Your task to perform on an android device: Add energizer triple a to the cart on walmart, then select checkout. Image 0: 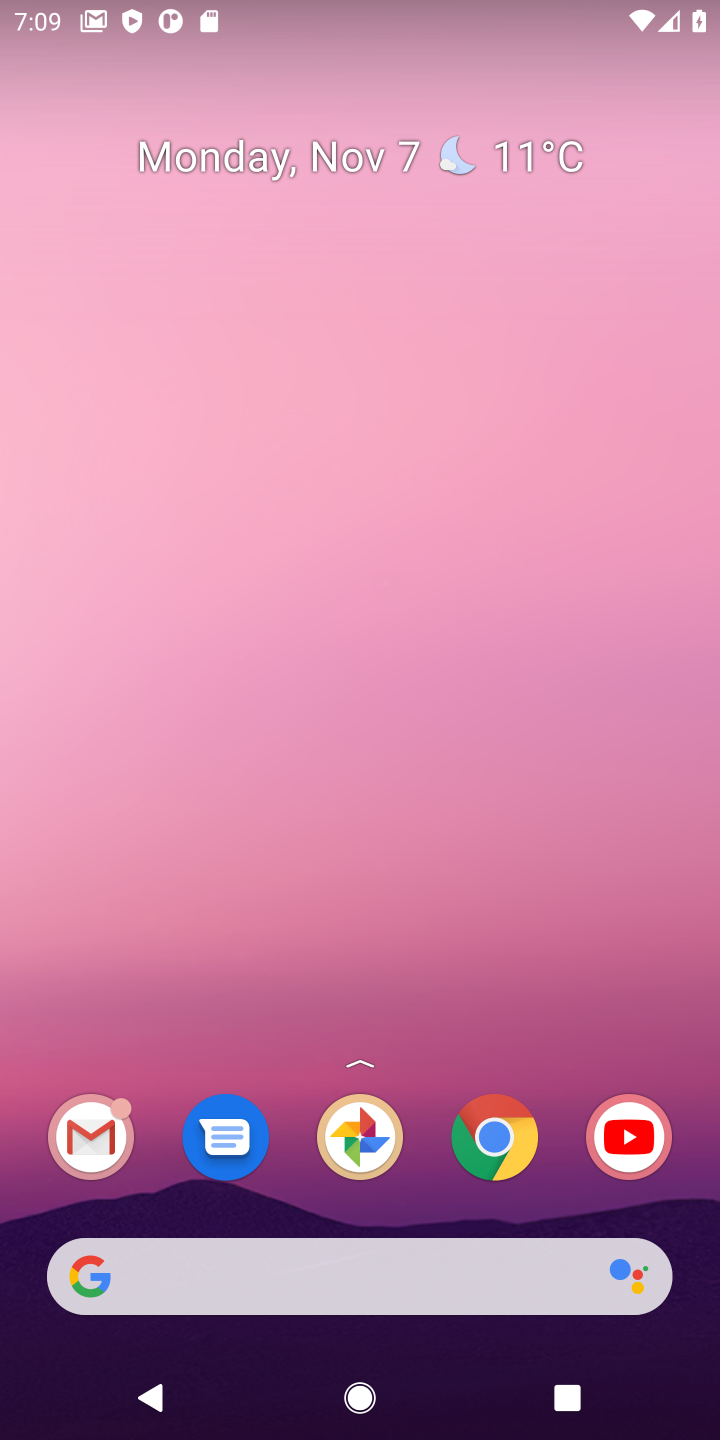
Step 0: click (517, 1115)
Your task to perform on an android device: Add energizer triple a to the cart on walmart, then select checkout. Image 1: 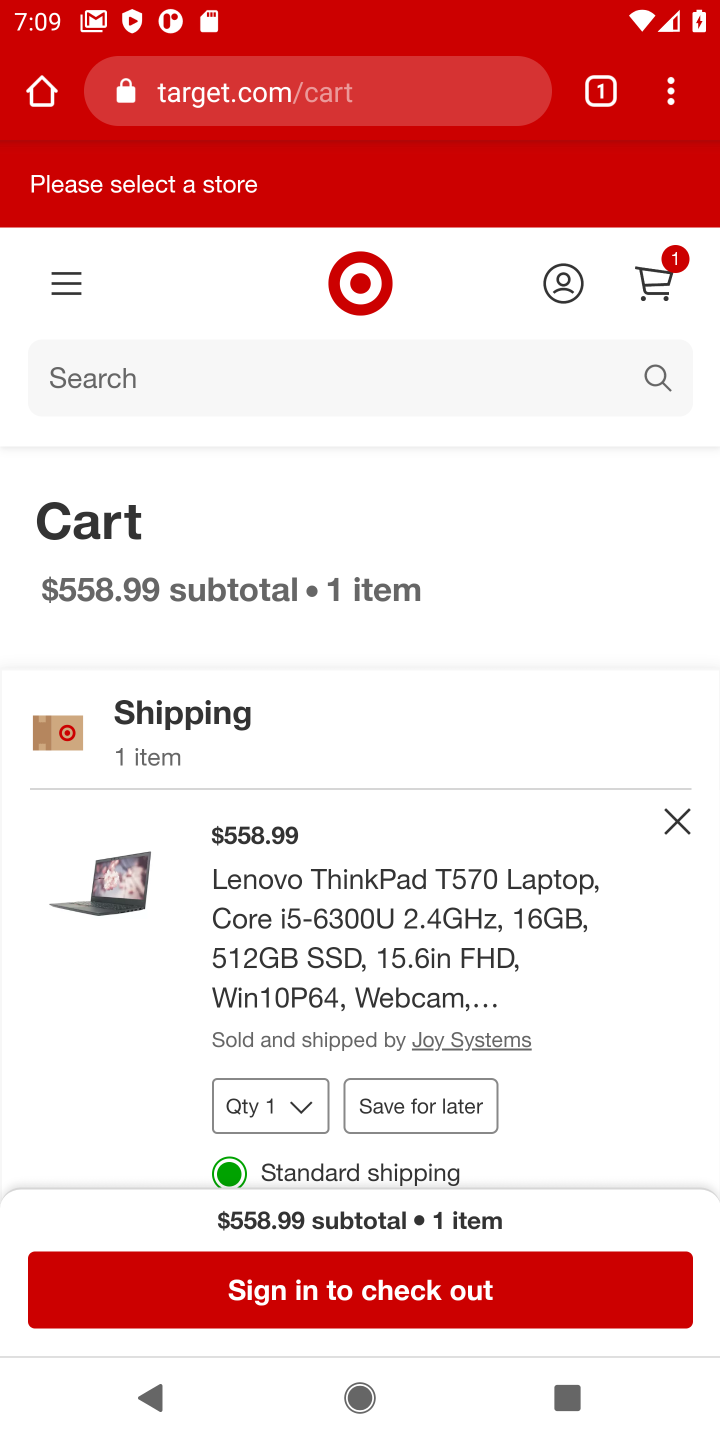
Step 1: click (612, 87)
Your task to perform on an android device: Add energizer triple a to the cart on walmart, then select checkout. Image 2: 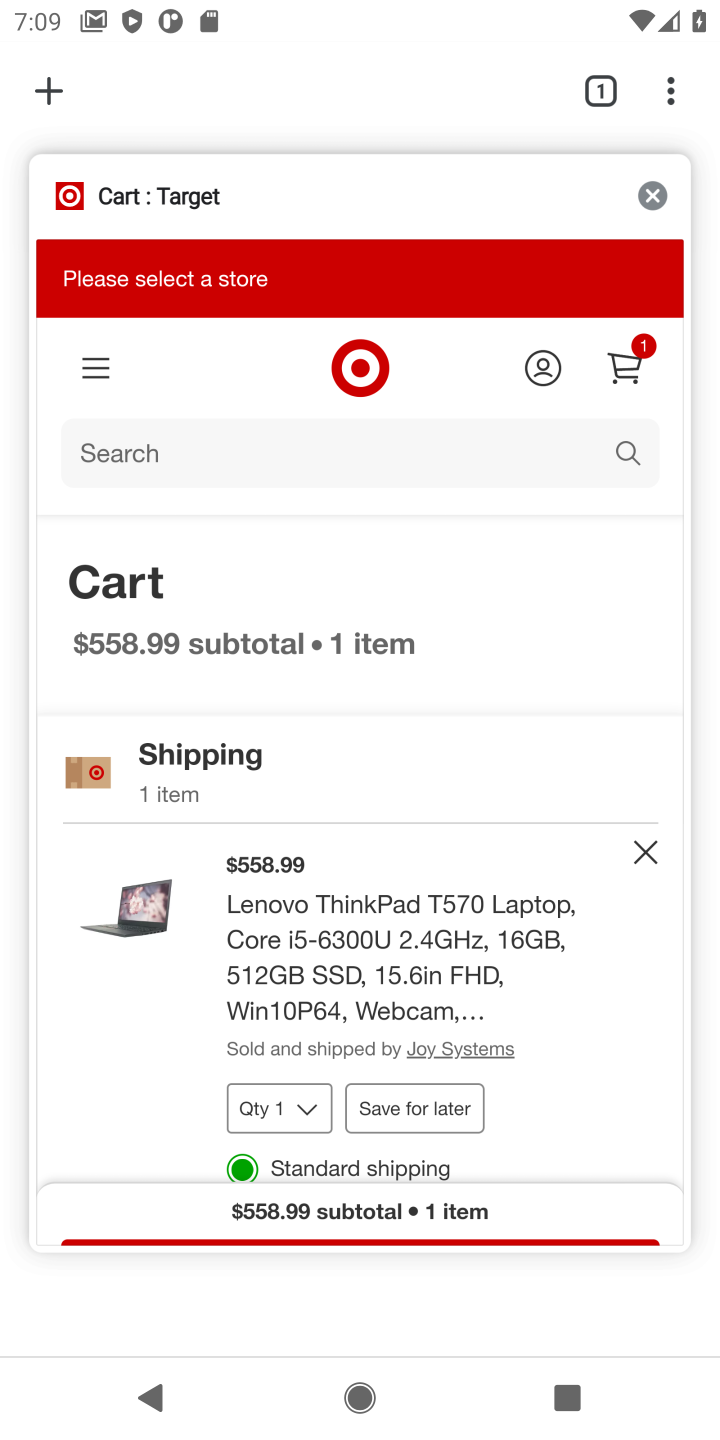
Step 2: click (57, 82)
Your task to perform on an android device: Add energizer triple a to the cart on walmart, then select checkout. Image 3: 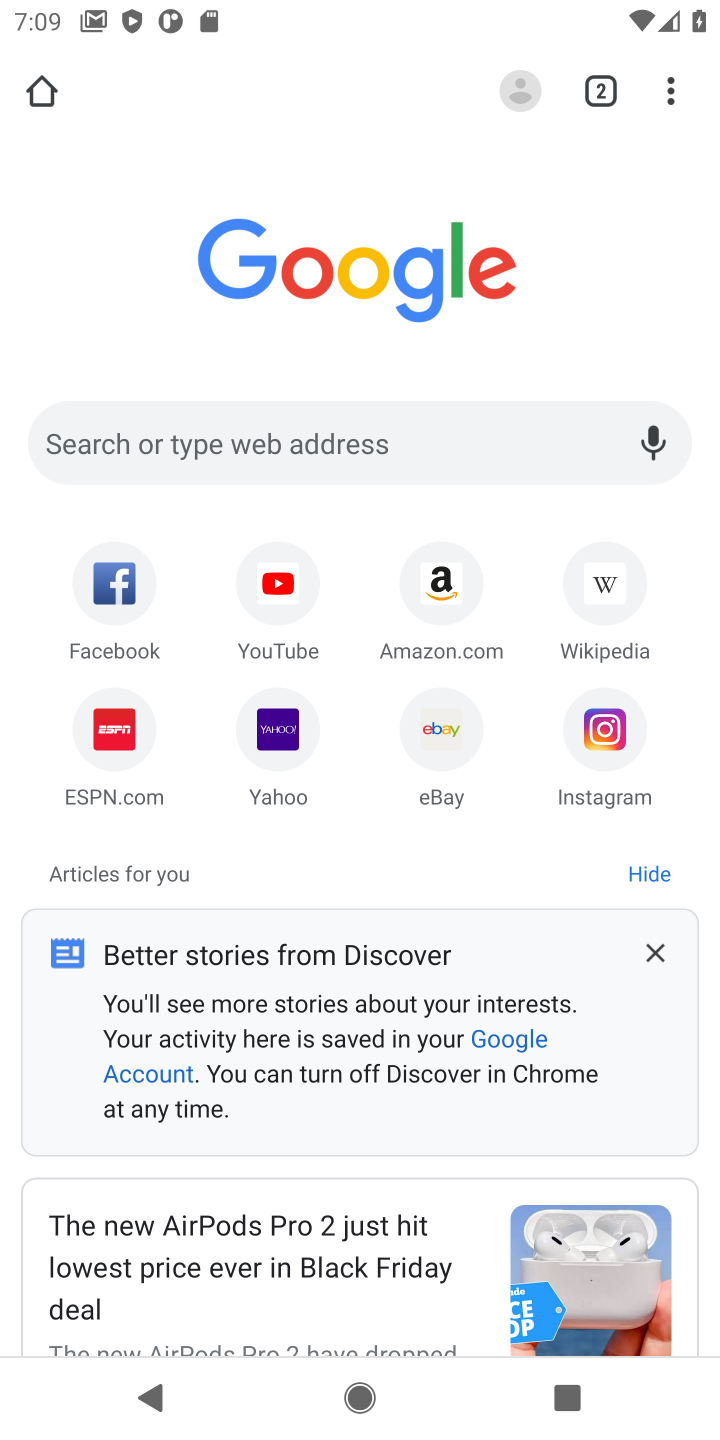
Step 3: click (223, 440)
Your task to perform on an android device: Add energizer triple a to the cart on walmart, then select checkout. Image 4: 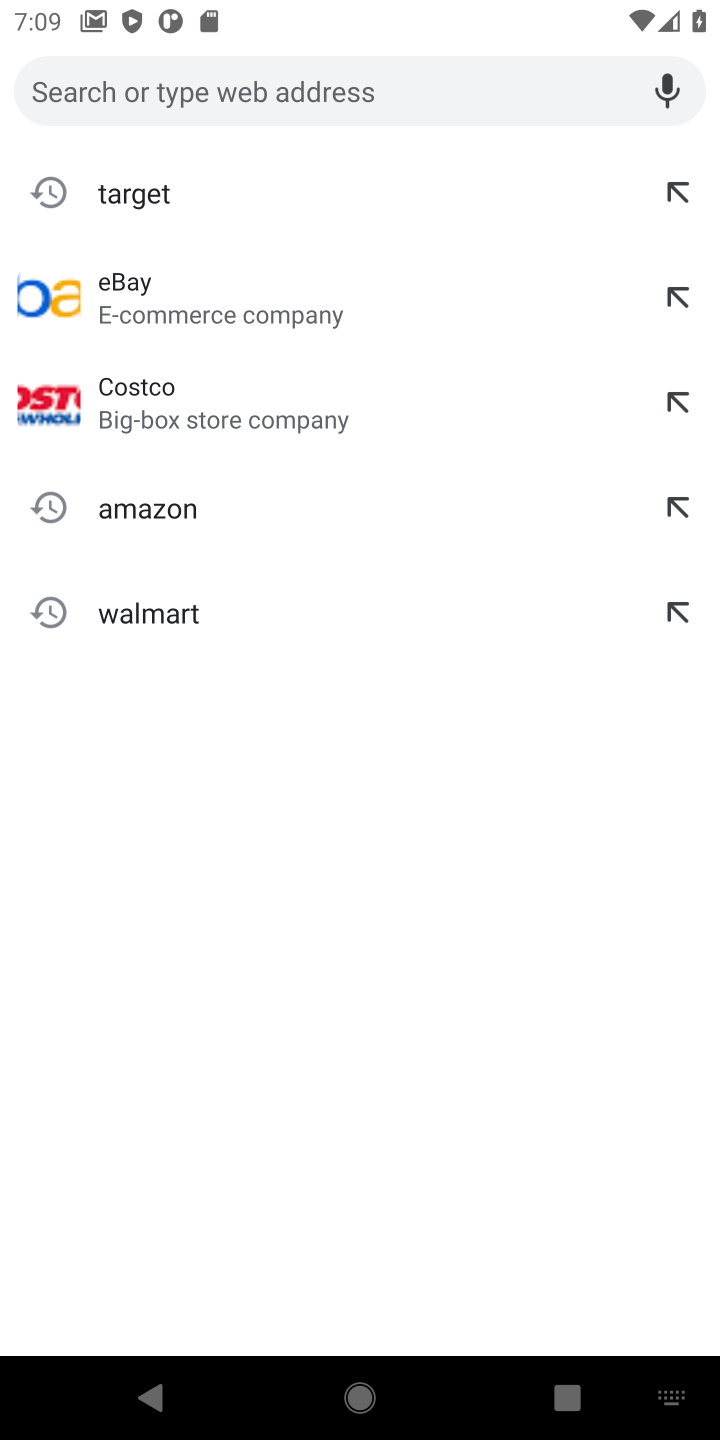
Step 4: click (162, 619)
Your task to perform on an android device: Add energizer triple a to the cart on walmart, then select checkout. Image 5: 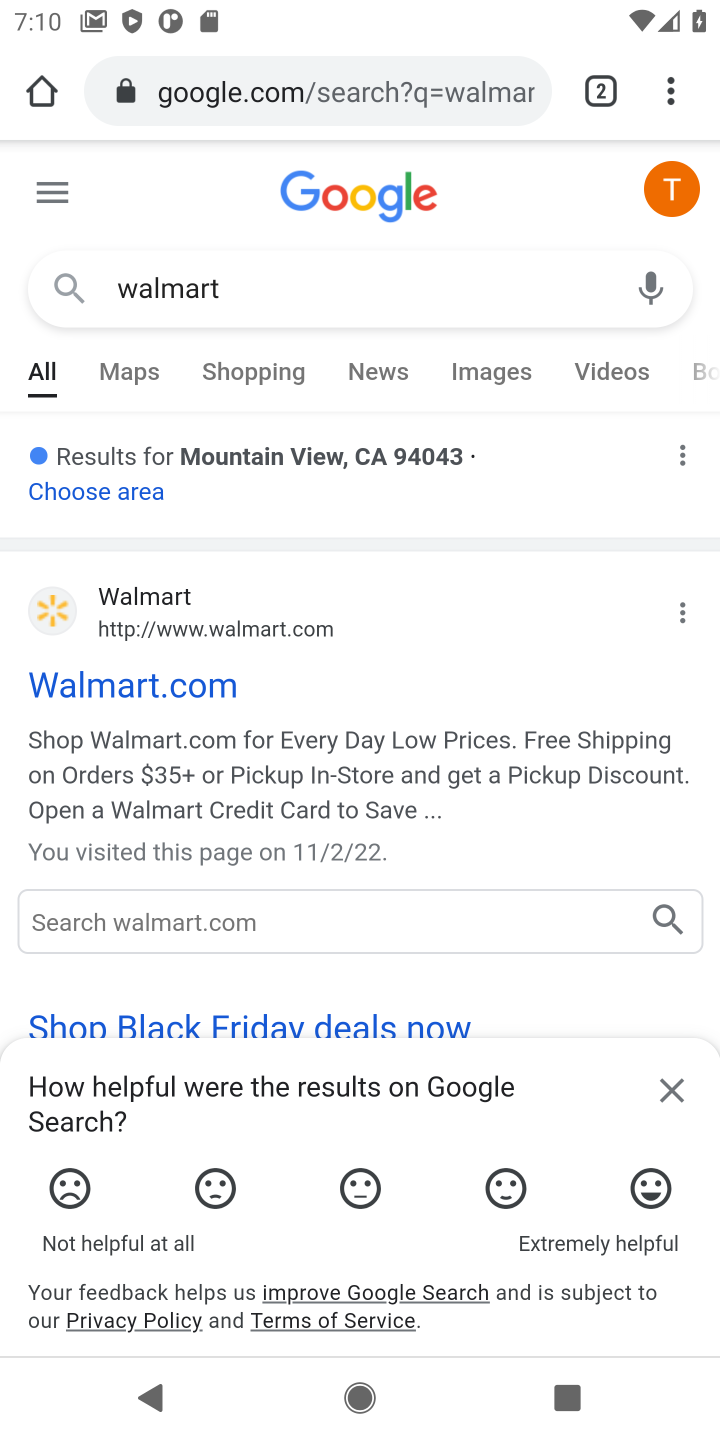
Step 5: click (155, 916)
Your task to perform on an android device: Add energizer triple a to the cart on walmart, then select checkout. Image 6: 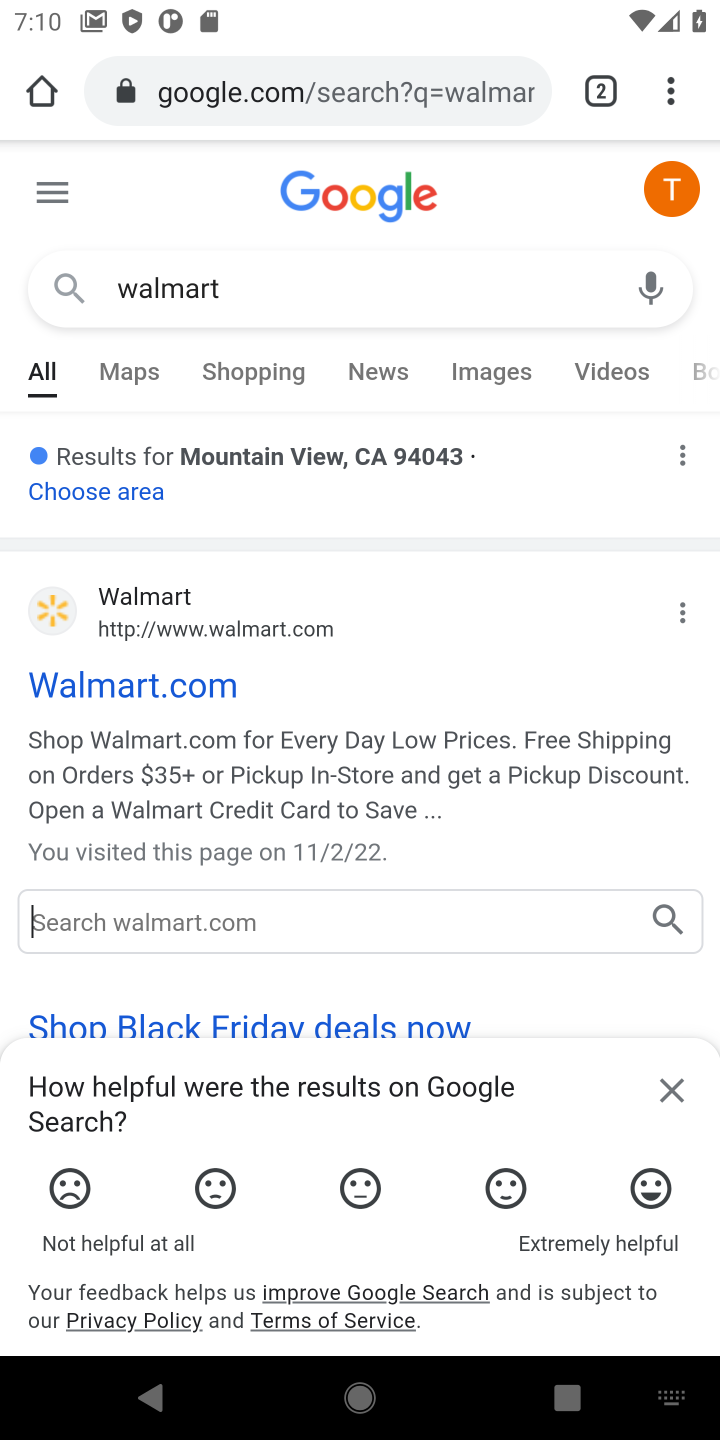
Step 6: type "energizer triple a  battery"
Your task to perform on an android device: Add energizer triple a to the cart on walmart, then select checkout. Image 7: 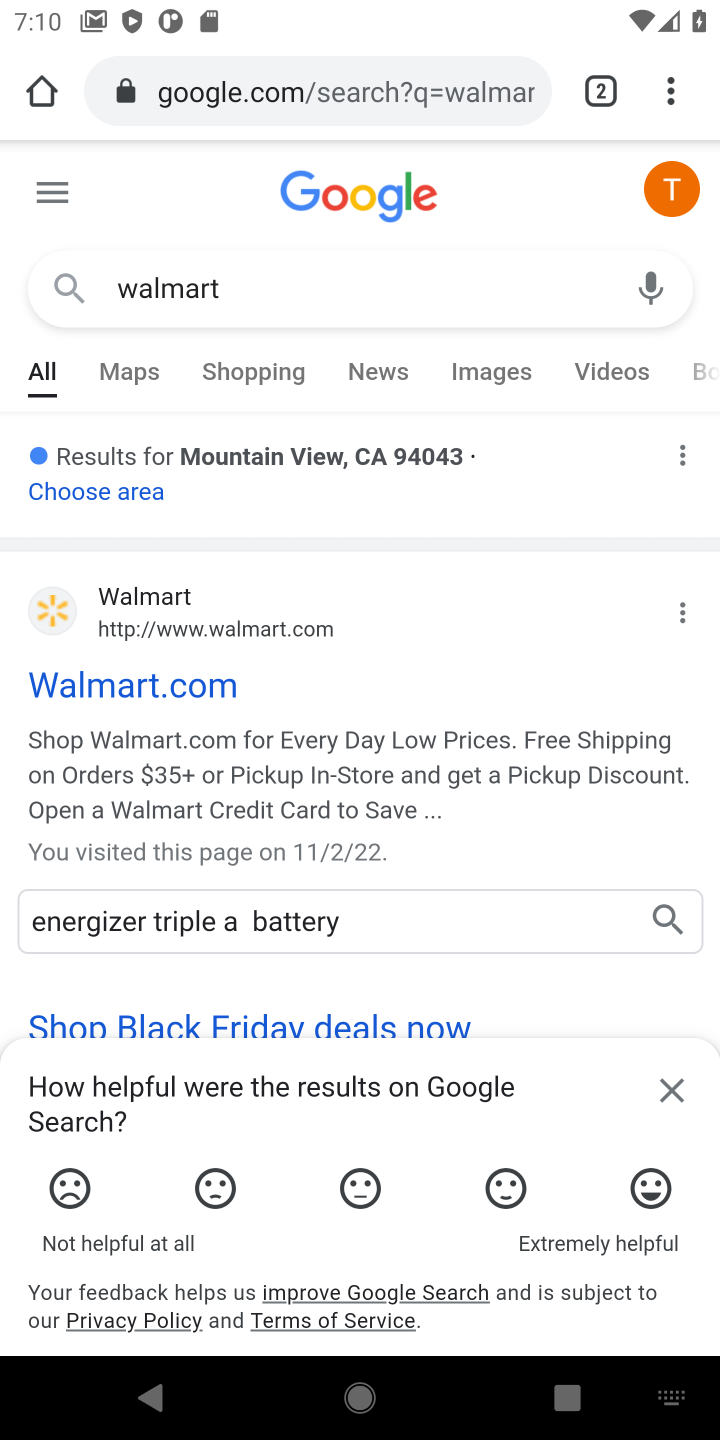
Step 7: click (667, 920)
Your task to perform on an android device: Add energizer triple a to the cart on walmart, then select checkout. Image 8: 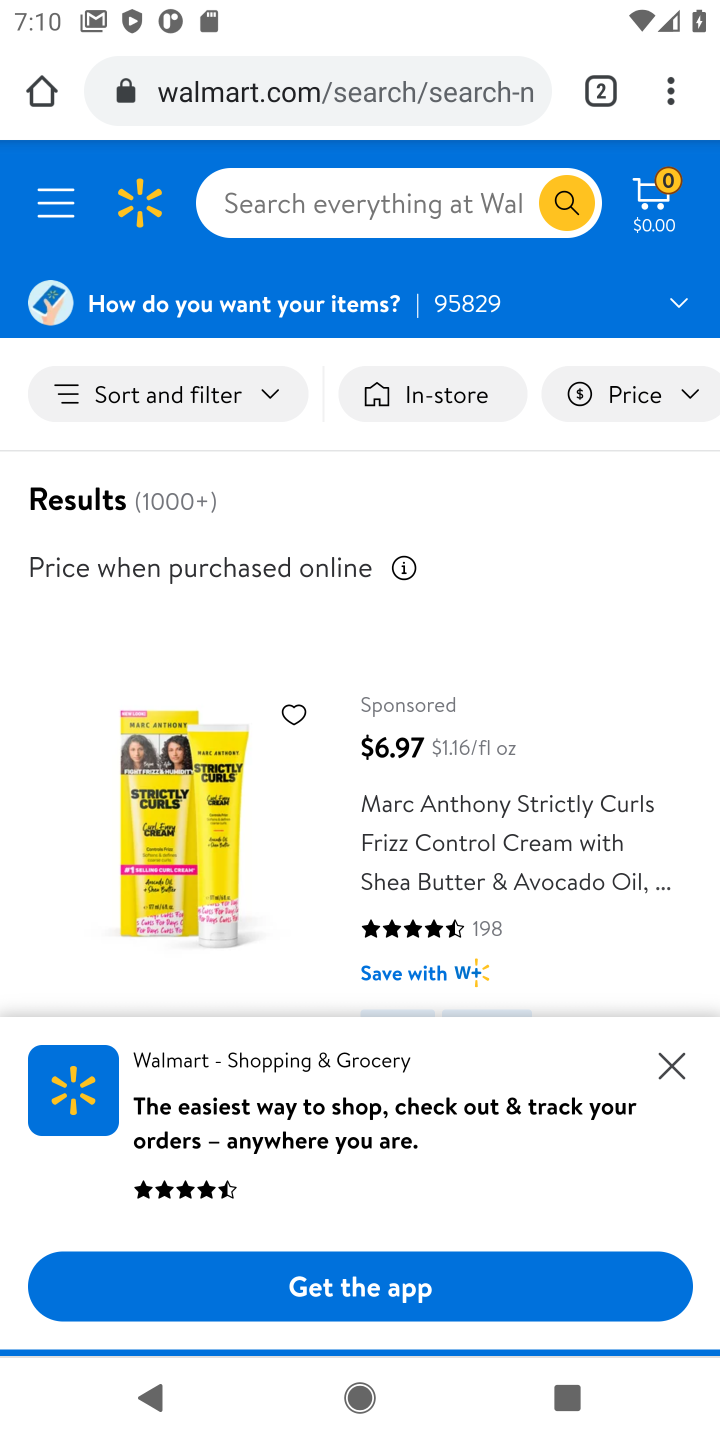
Step 8: click (675, 1067)
Your task to perform on an android device: Add energizer triple a to the cart on walmart, then select checkout. Image 9: 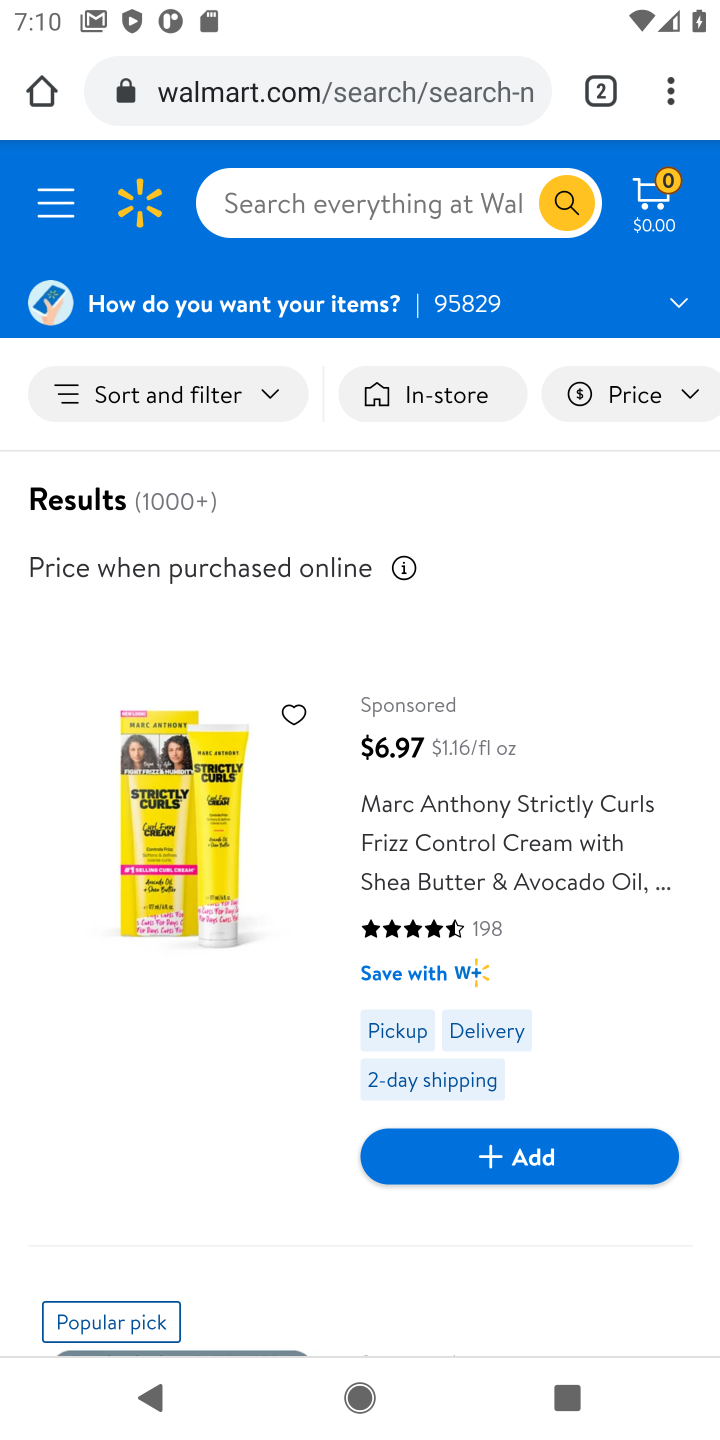
Step 9: drag from (411, 1286) to (719, 0)
Your task to perform on an android device: Add energizer triple a to the cart on walmart, then select checkout. Image 10: 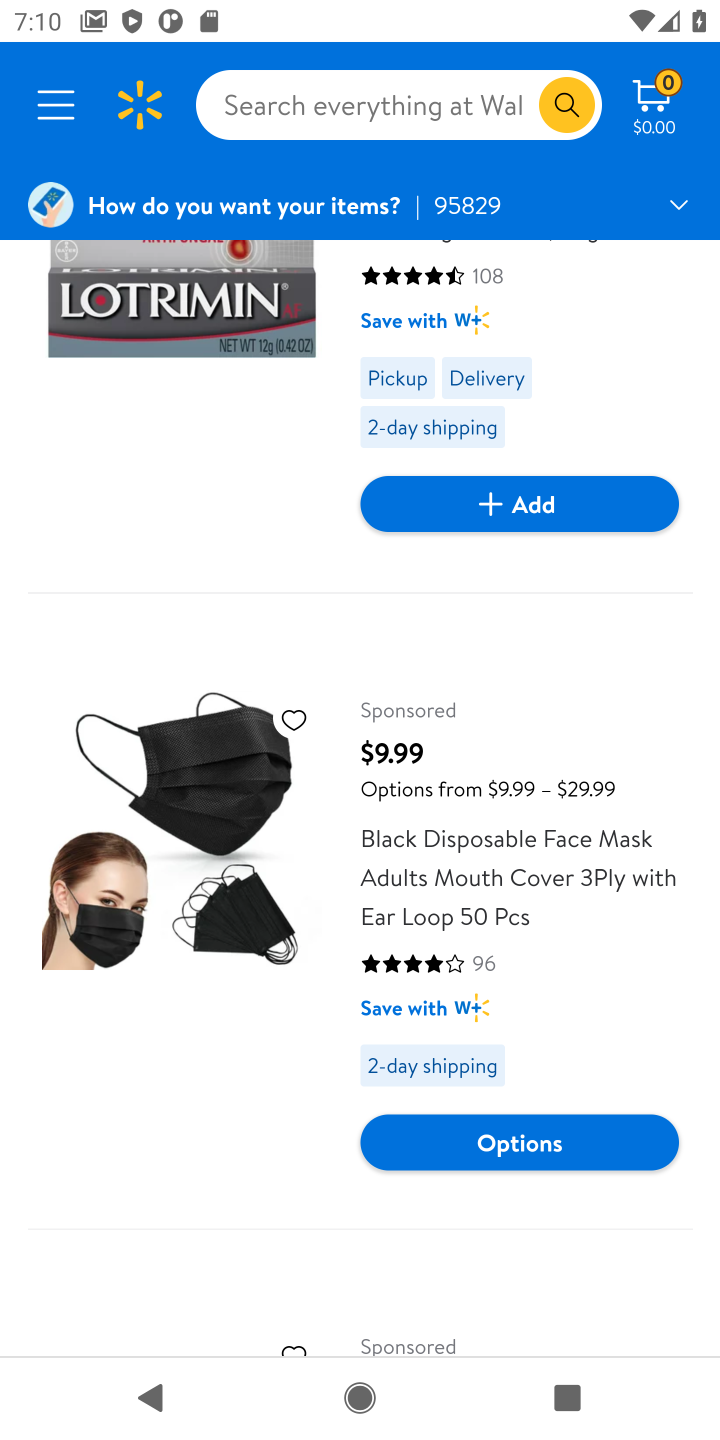
Step 10: drag from (522, 1003) to (506, 196)
Your task to perform on an android device: Add energizer triple a to the cart on walmart, then select checkout. Image 11: 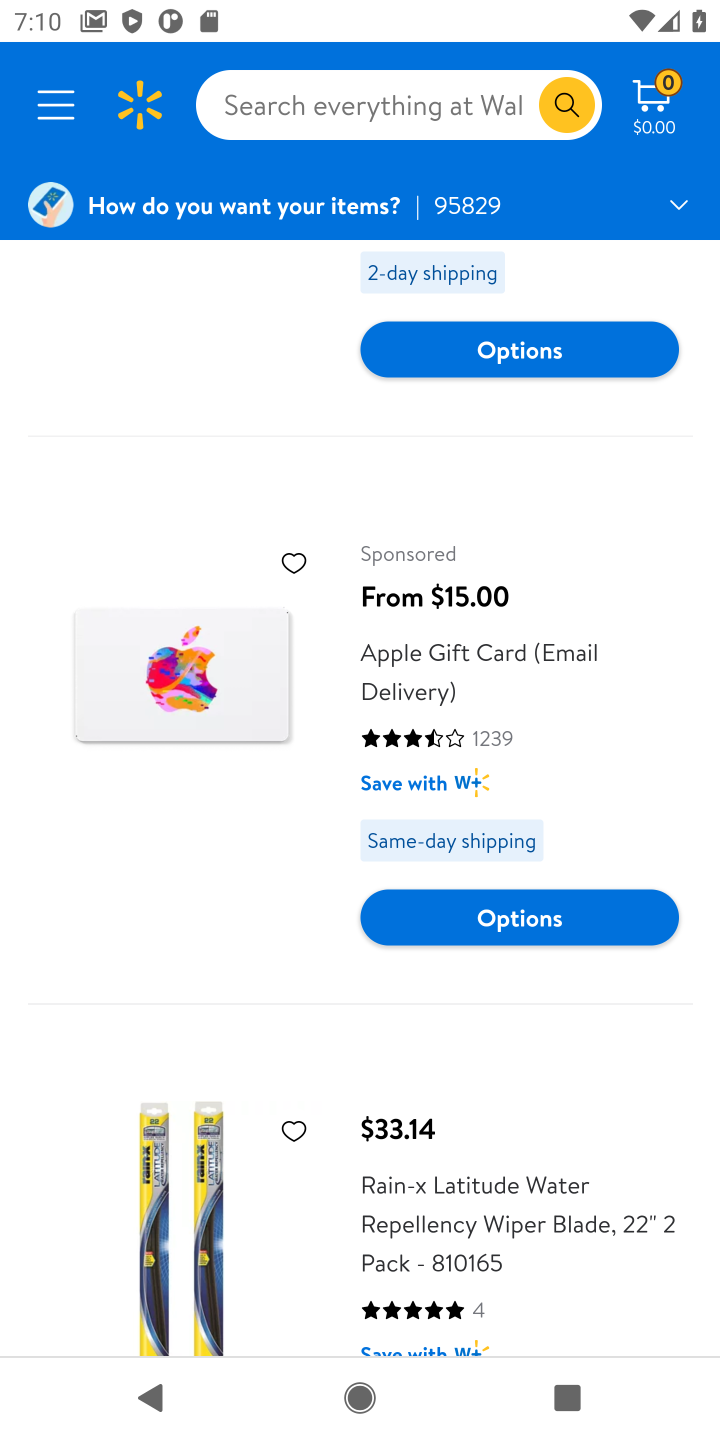
Step 11: drag from (422, 1043) to (688, 10)
Your task to perform on an android device: Add energizer triple a to the cart on walmart, then select checkout. Image 12: 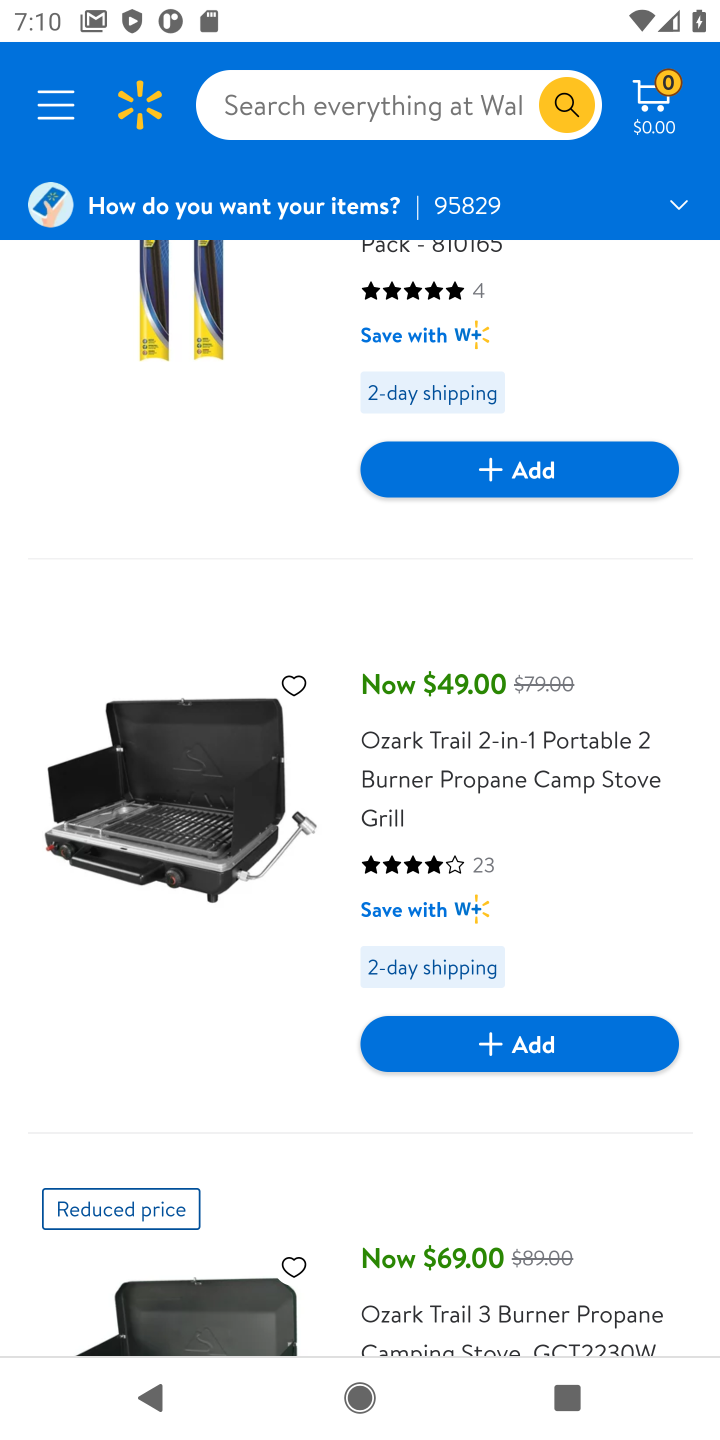
Step 12: click (347, 106)
Your task to perform on an android device: Add energizer triple a to the cart on walmart, then select checkout. Image 13: 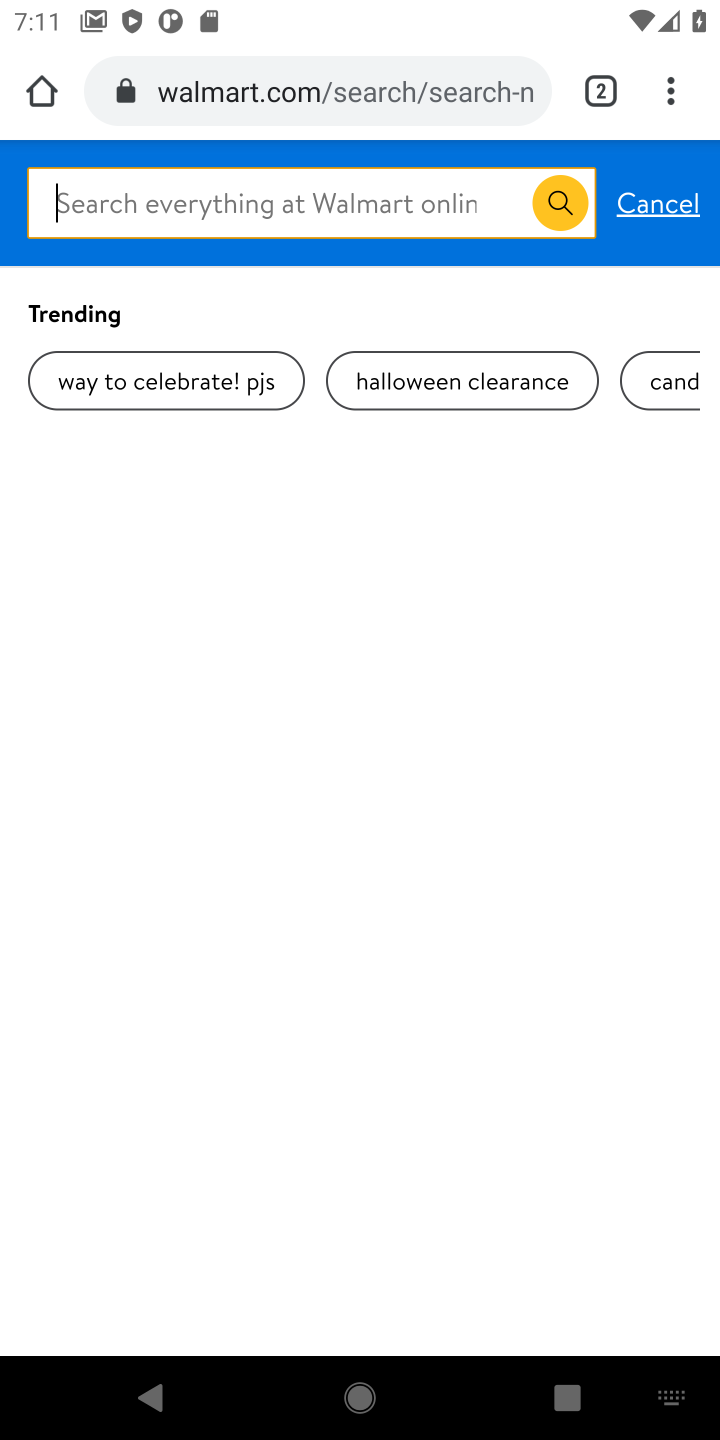
Step 13: type "energizer triple a battery"
Your task to perform on an android device: Add energizer triple a to the cart on walmart, then select checkout. Image 14: 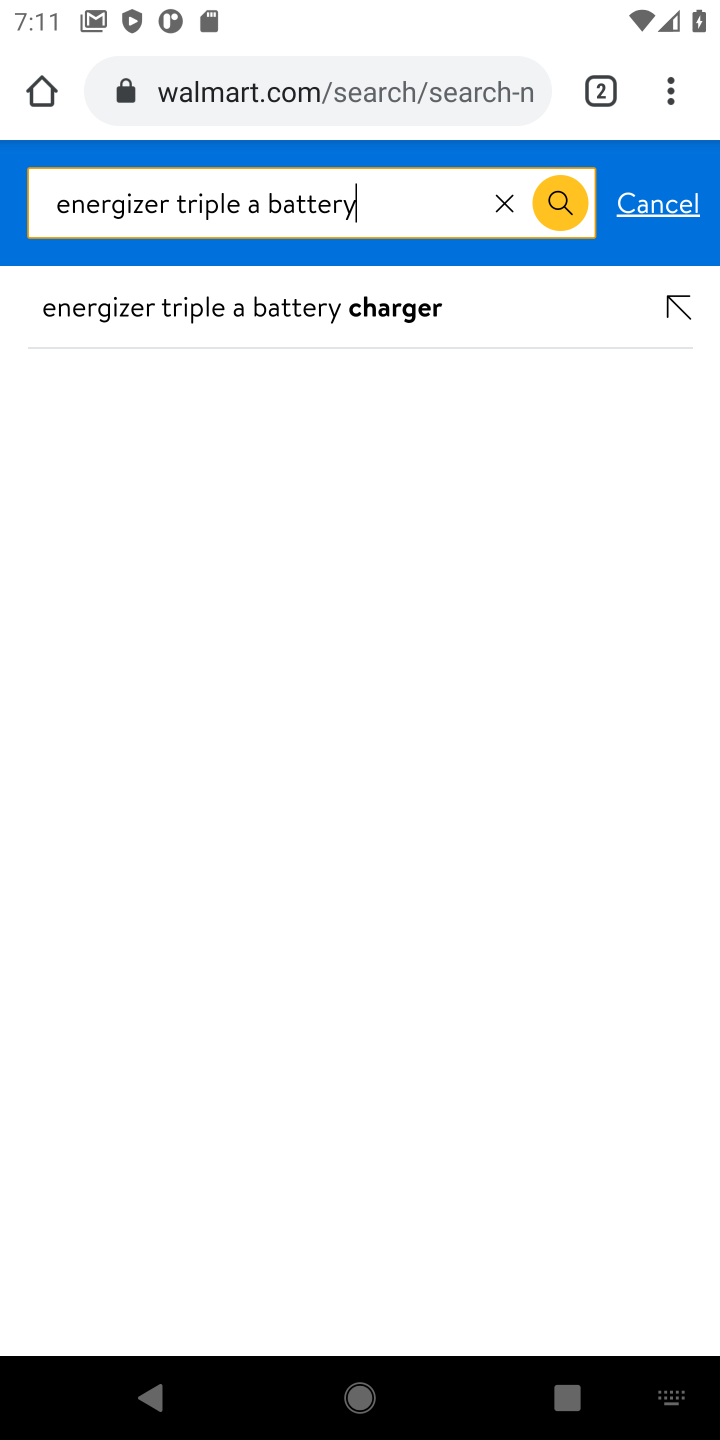
Step 14: click (339, 325)
Your task to perform on an android device: Add energizer triple a to the cart on walmart, then select checkout. Image 15: 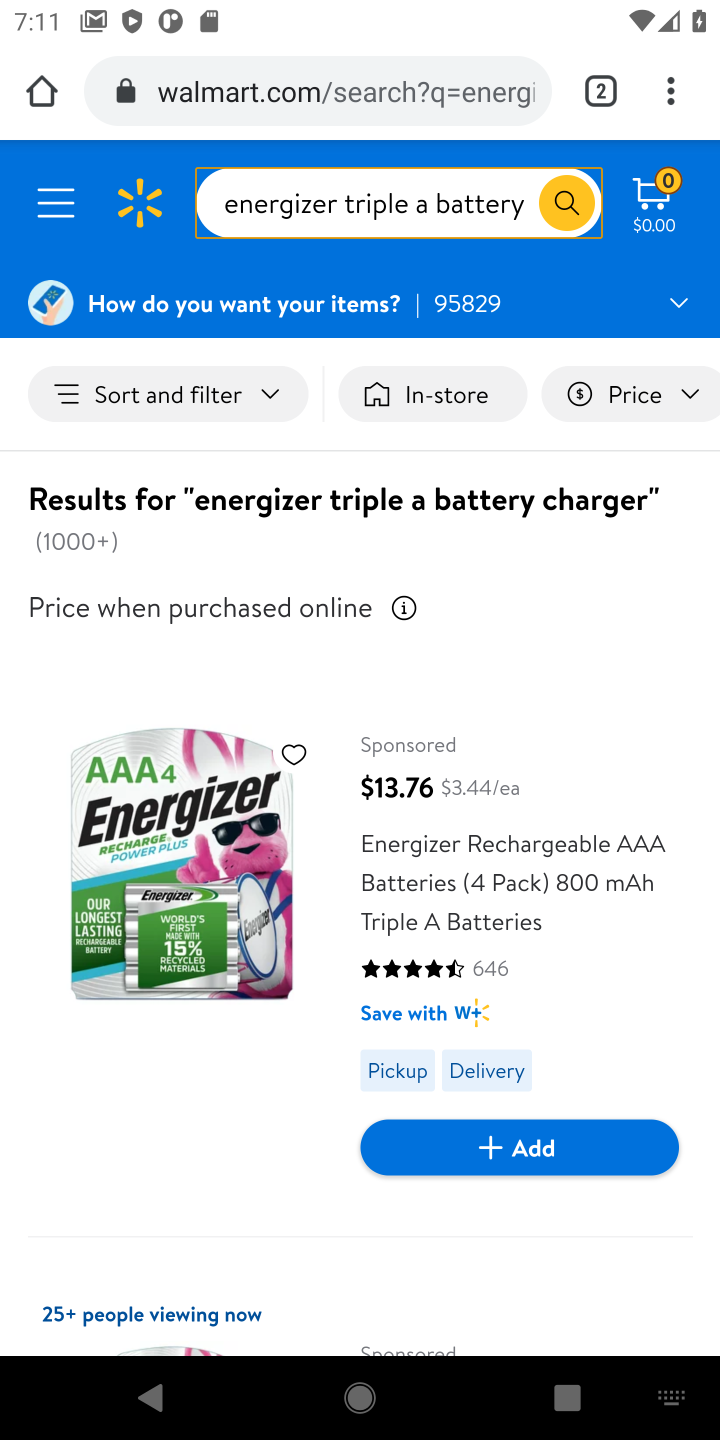
Step 15: click (517, 1155)
Your task to perform on an android device: Add energizer triple a to the cart on walmart, then select checkout. Image 16: 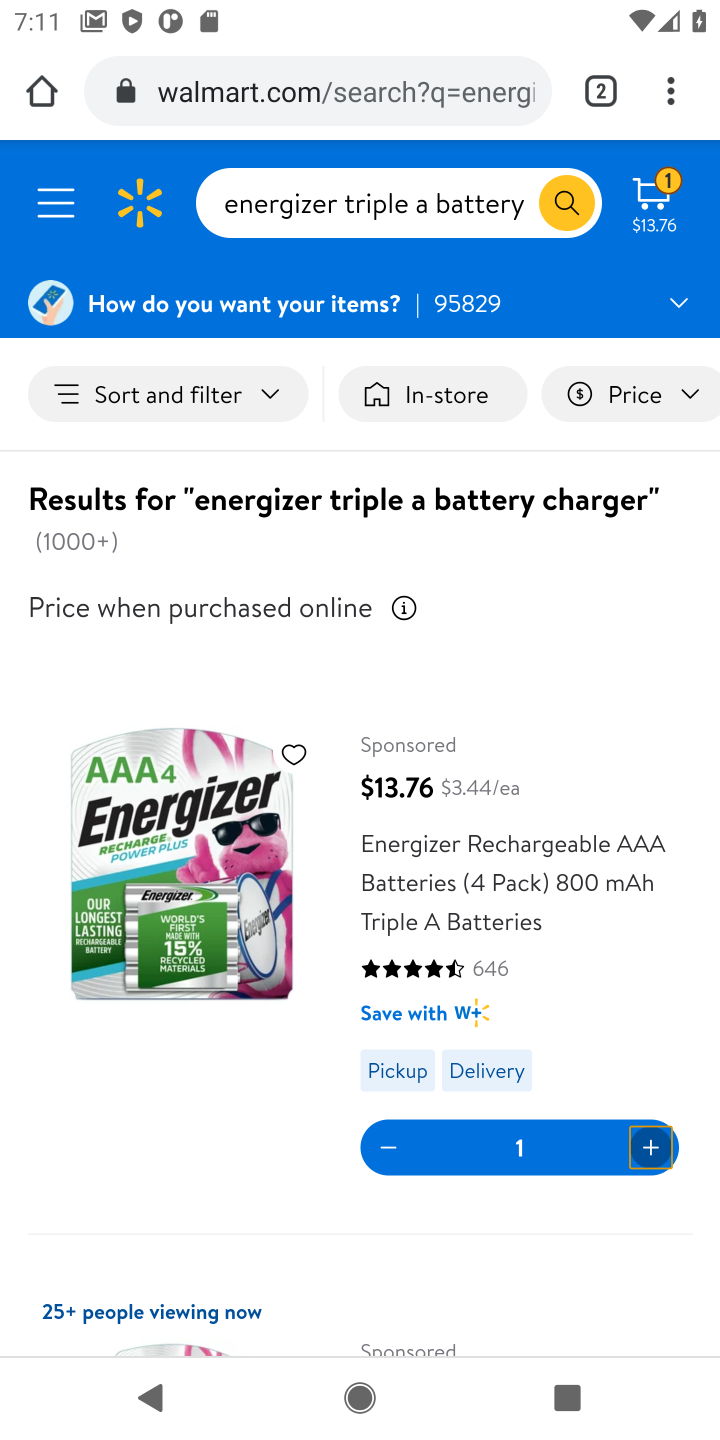
Step 16: click (655, 214)
Your task to perform on an android device: Add energizer triple a to the cart on walmart, then select checkout. Image 17: 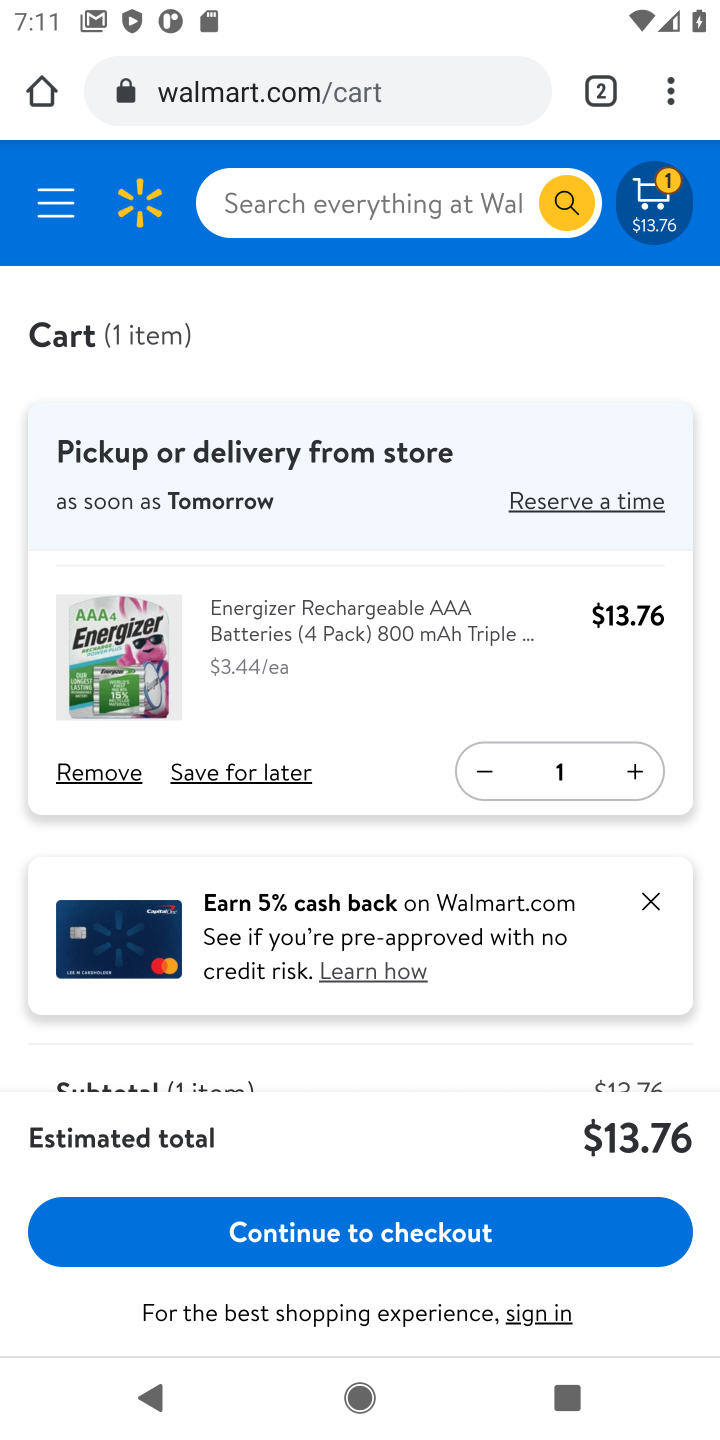
Step 17: click (344, 1229)
Your task to perform on an android device: Add energizer triple a to the cart on walmart, then select checkout. Image 18: 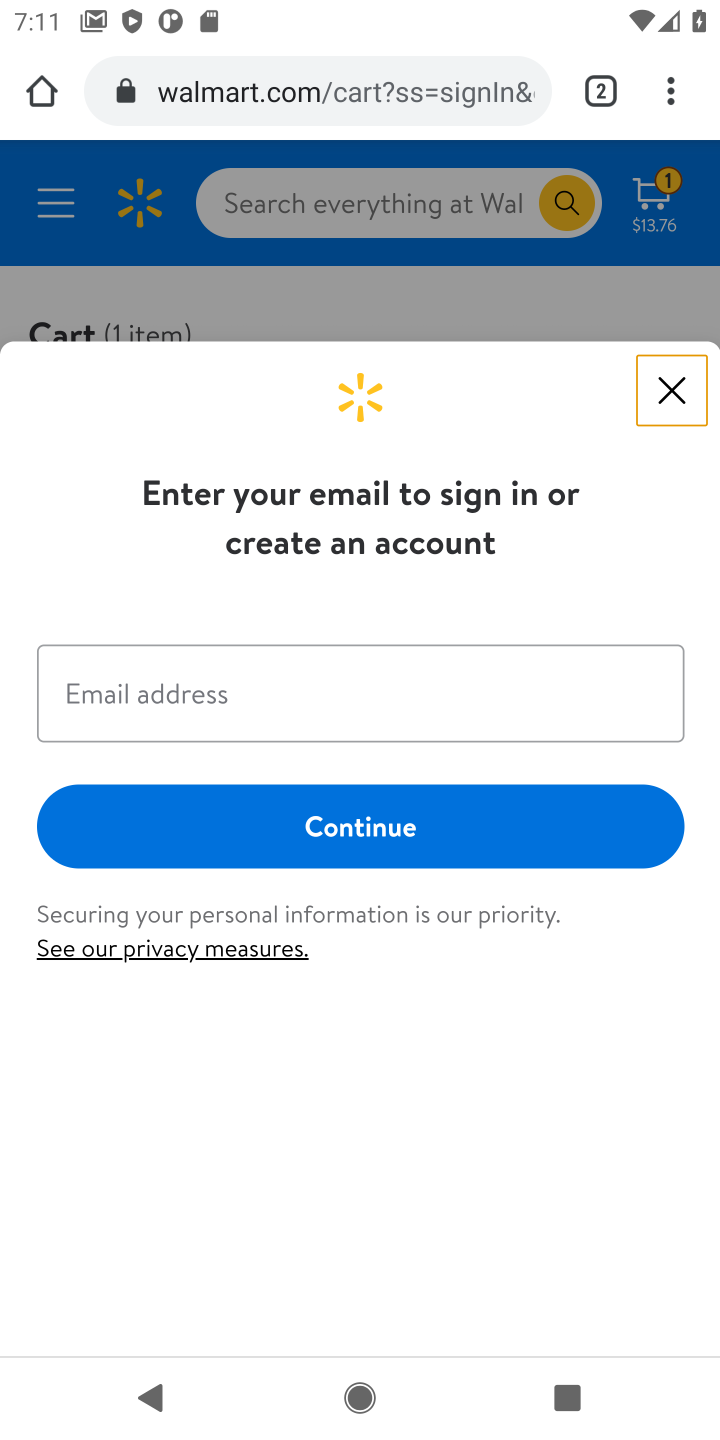
Step 18: task complete